Your task to perform on an android device: Go to sound settings Image 0: 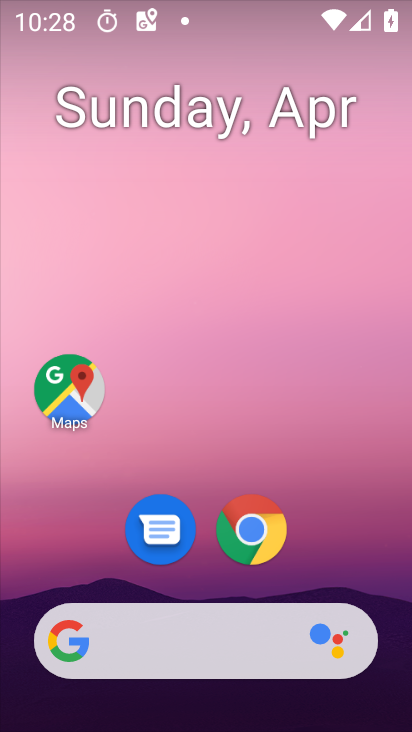
Step 0: drag from (192, 528) to (182, 86)
Your task to perform on an android device: Go to sound settings Image 1: 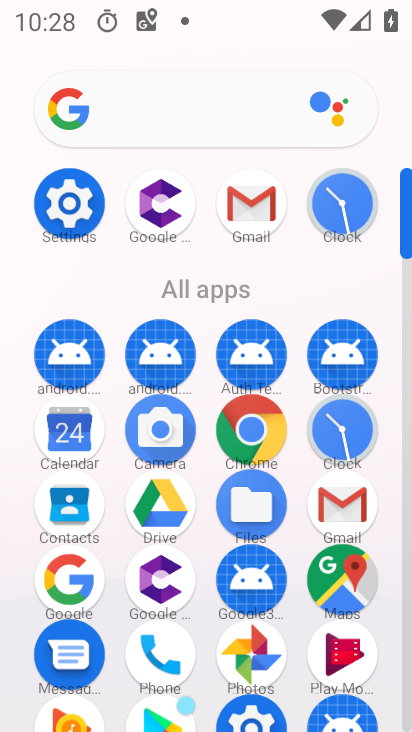
Step 1: click (58, 210)
Your task to perform on an android device: Go to sound settings Image 2: 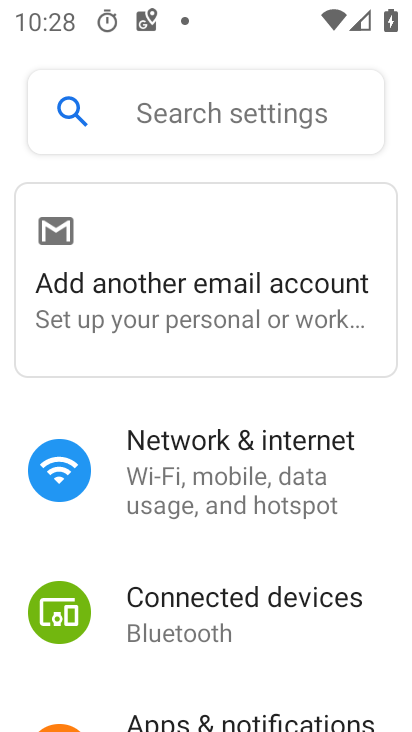
Step 2: drag from (248, 655) to (235, 255)
Your task to perform on an android device: Go to sound settings Image 3: 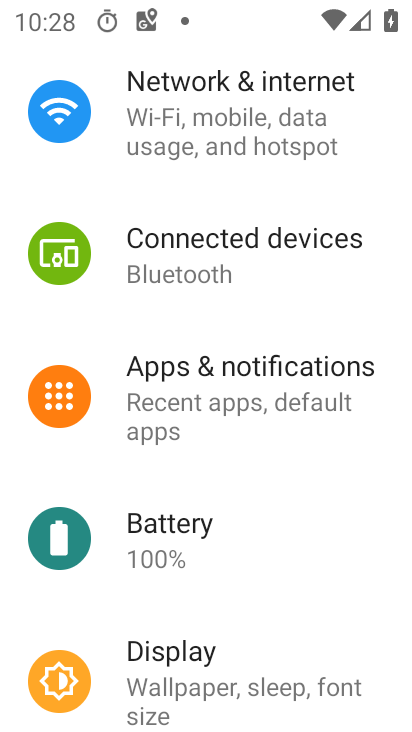
Step 3: drag from (234, 654) to (225, 245)
Your task to perform on an android device: Go to sound settings Image 4: 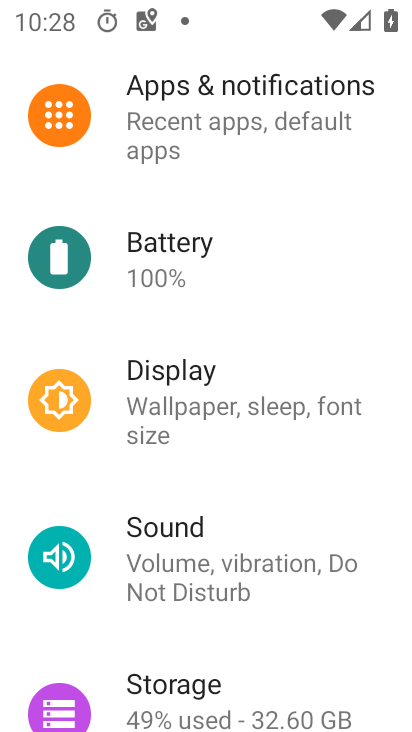
Step 4: click (229, 602)
Your task to perform on an android device: Go to sound settings Image 5: 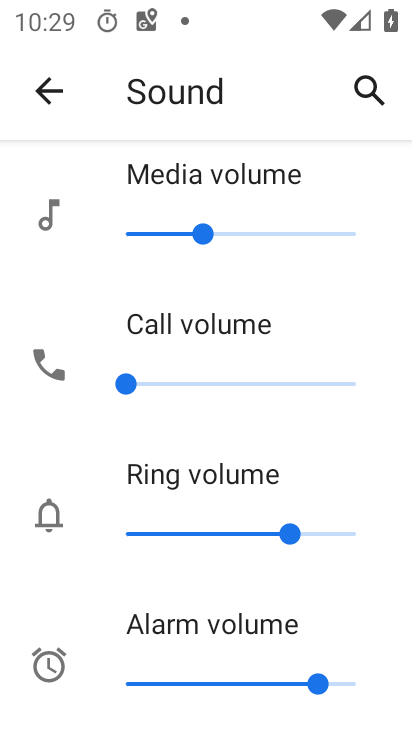
Step 5: task complete